Your task to perform on an android device: Open Wikipedia Image 0: 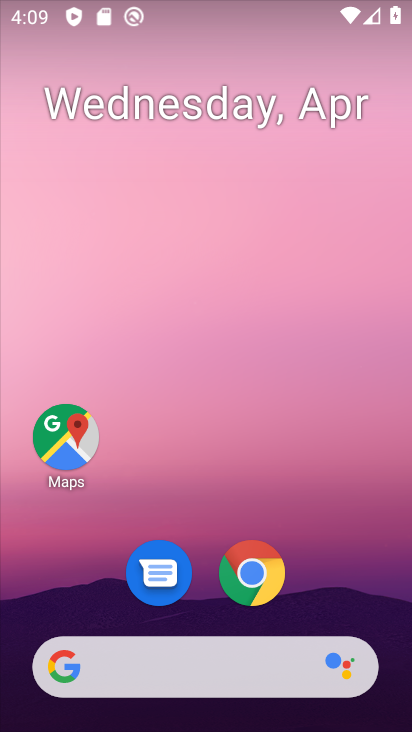
Step 0: click (263, 579)
Your task to perform on an android device: Open Wikipedia Image 1: 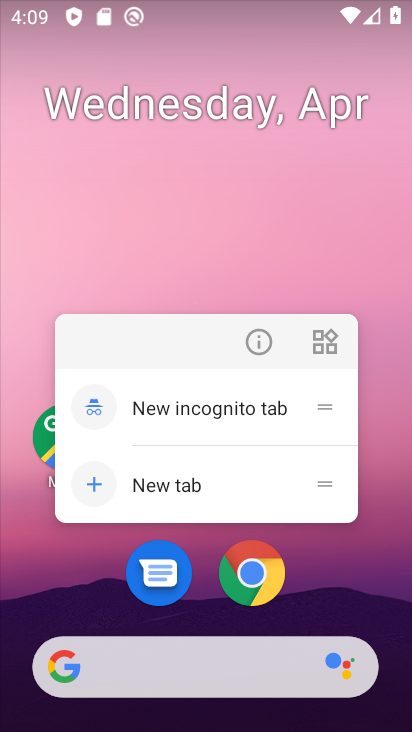
Step 1: click (252, 579)
Your task to perform on an android device: Open Wikipedia Image 2: 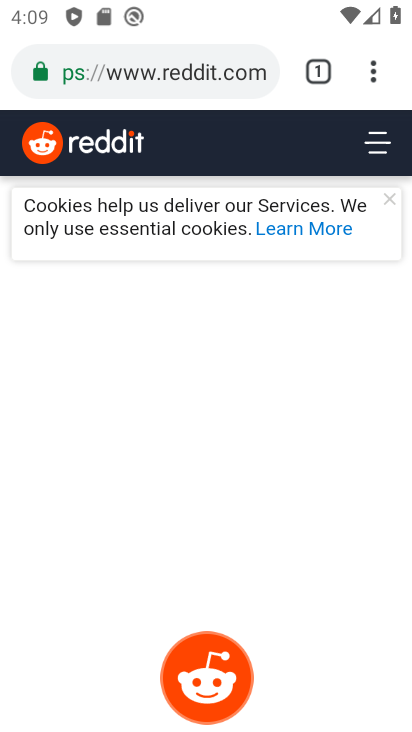
Step 2: click (374, 73)
Your task to perform on an android device: Open Wikipedia Image 3: 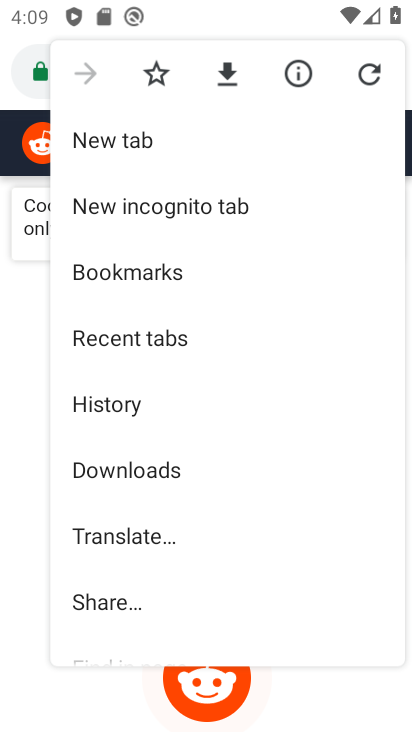
Step 3: click (108, 140)
Your task to perform on an android device: Open Wikipedia Image 4: 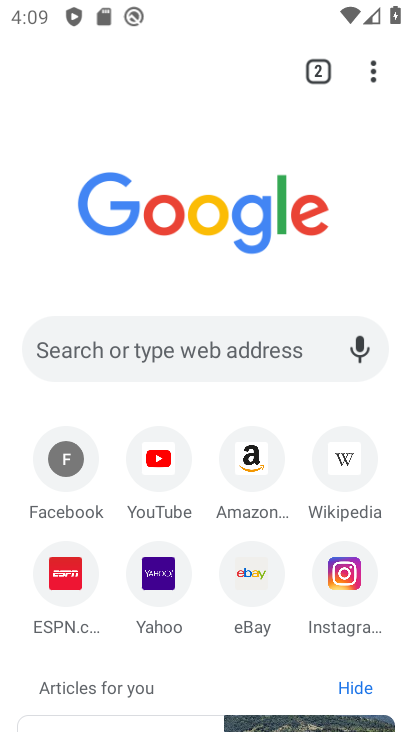
Step 4: click (342, 451)
Your task to perform on an android device: Open Wikipedia Image 5: 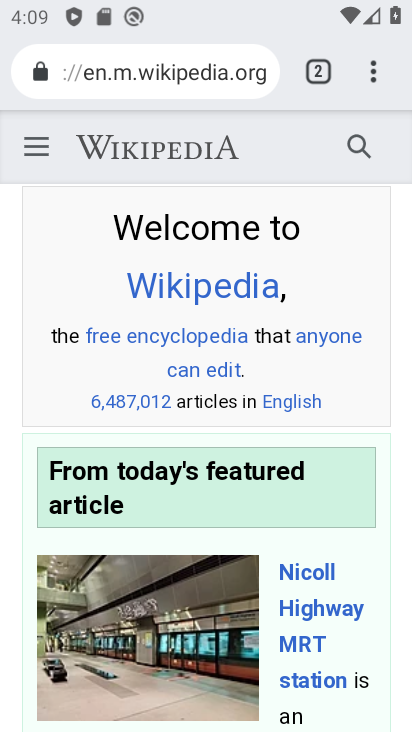
Step 5: task complete